Your task to perform on an android device: all mails in gmail Image 0: 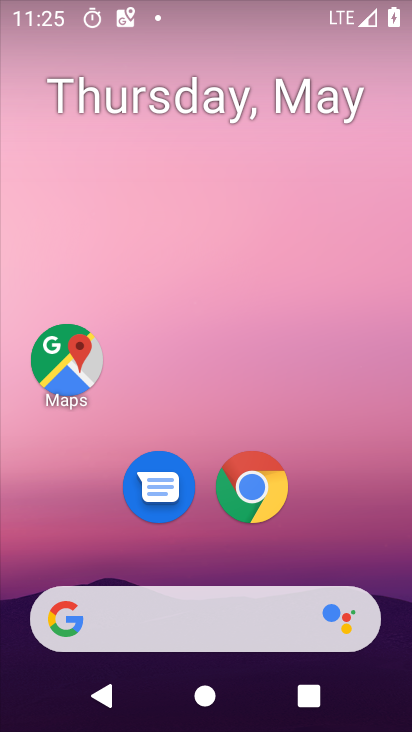
Step 0: drag from (265, 641) to (286, 89)
Your task to perform on an android device: all mails in gmail Image 1: 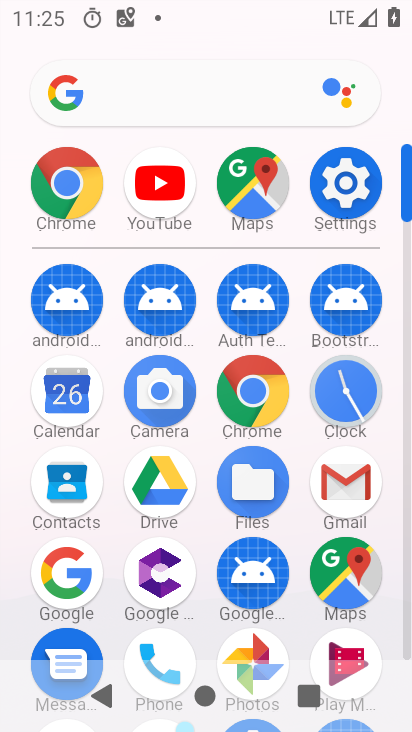
Step 1: click (344, 489)
Your task to perform on an android device: all mails in gmail Image 2: 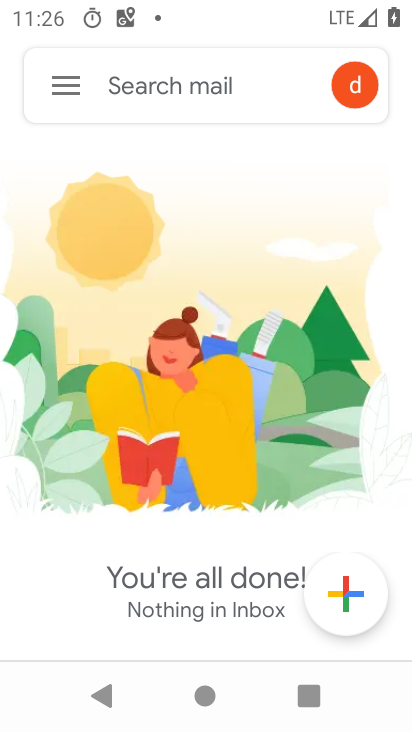
Step 2: click (70, 75)
Your task to perform on an android device: all mails in gmail Image 3: 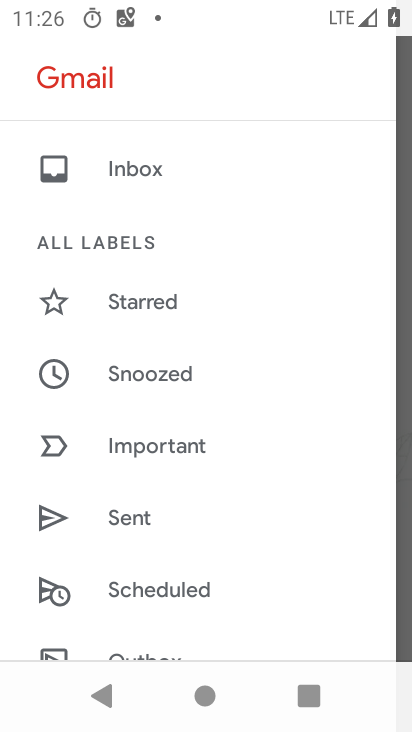
Step 3: drag from (147, 521) to (160, 189)
Your task to perform on an android device: all mails in gmail Image 4: 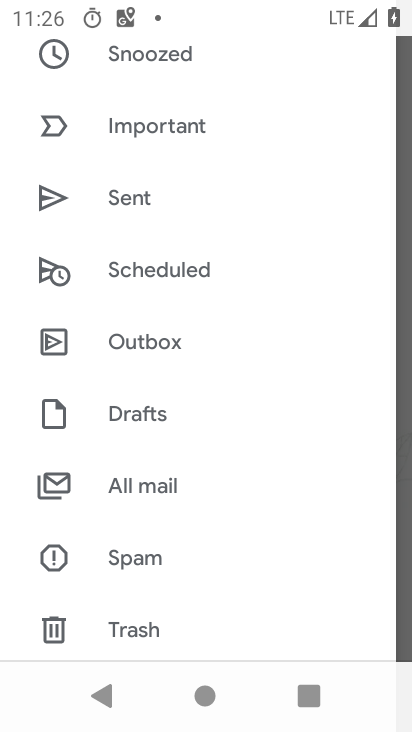
Step 4: click (166, 501)
Your task to perform on an android device: all mails in gmail Image 5: 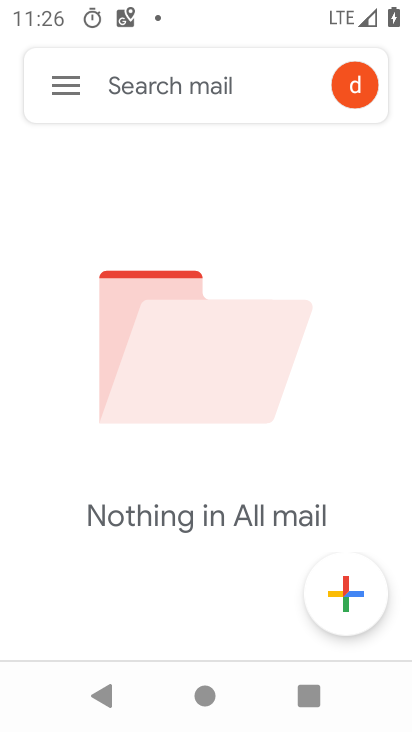
Step 5: task complete